Your task to perform on an android device: add a label to a message in the gmail app Image 0: 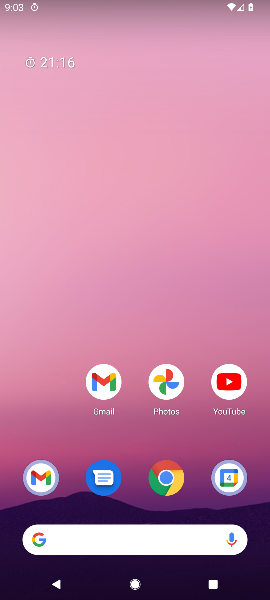
Step 0: drag from (121, 432) to (141, 72)
Your task to perform on an android device: add a label to a message in the gmail app Image 1: 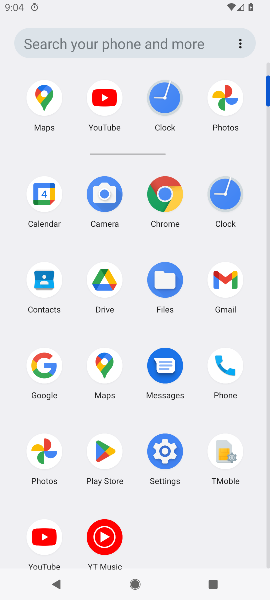
Step 1: click (233, 276)
Your task to perform on an android device: add a label to a message in the gmail app Image 2: 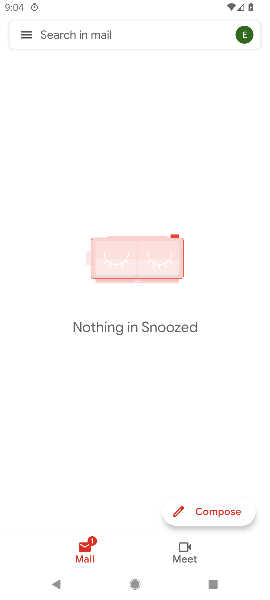
Step 2: click (84, 542)
Your task to perform on an android device: add a label to a message in the gmail app Image 3: 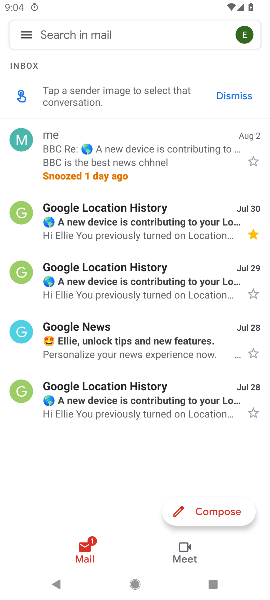
Step 3: click (73, 209)
Your task to perform on an android device: add a label to a message in the gmail app Image 4: 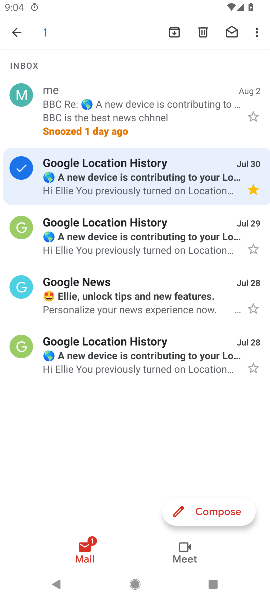
Step 4: click (253, 28)
Your task to perform on an android device: add a label to a message in the gmail app Image 5: 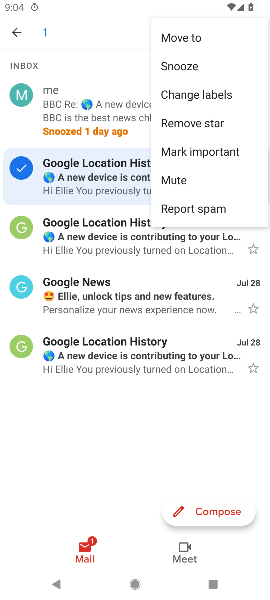
Step 5: task complete